Your task to perform on an android device: turn smart compose on in the gmail app Image 0: 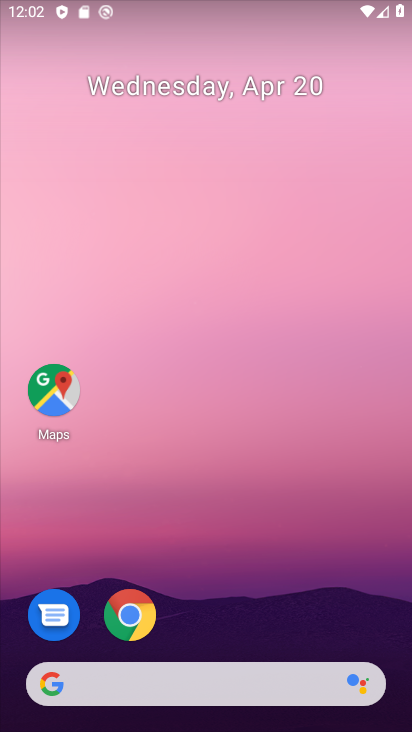
Step 0: click (352, 158)
Your task to perform on an android device: turn smart compose on in the gmail app Image 1: 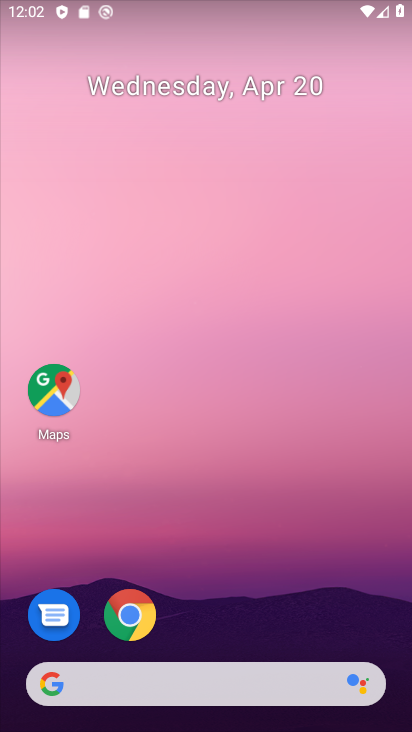
Step 1: drag from (367, 630) to (337, 168)
Your task to perform on an android device: turn smart compose on in the gmail app Image 2: 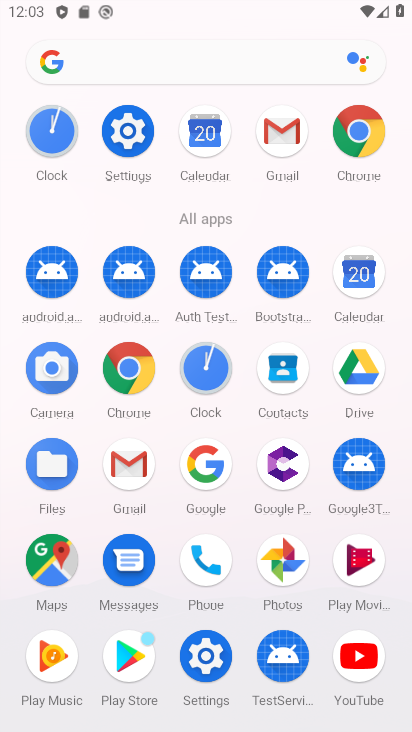
Step 2: click (268, 130)
Your task to perform on an android device: turn smart compose on in the gmail app Image 3: 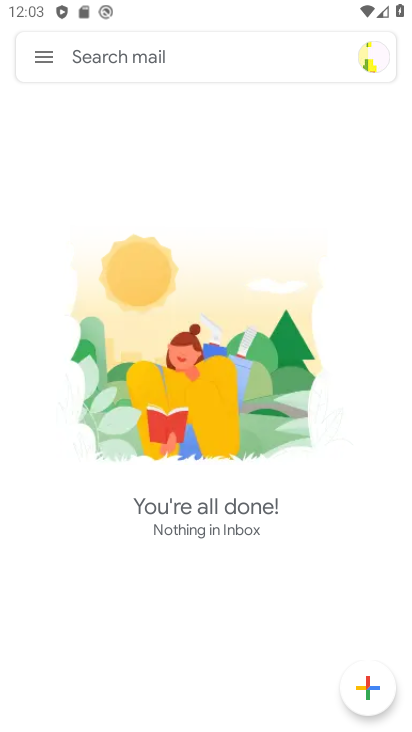
Step 3: click (38, 58)
Your task to perform on an android device: turn smart compose on in the gmail app Image 4: 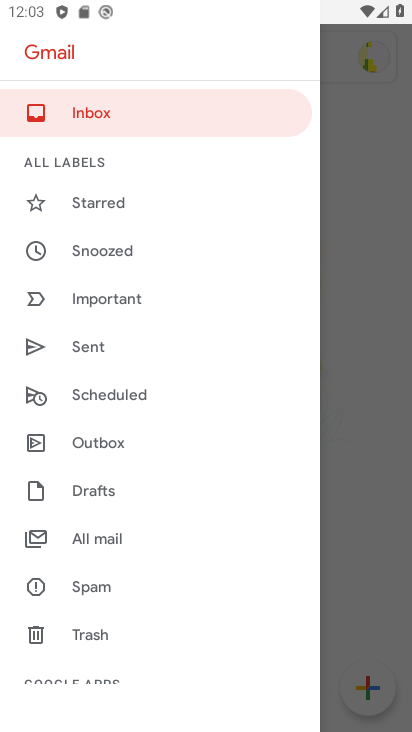
Step 4: drag from (178, 630) to (189, 341)
Your task to perform on an android device: turn smart compose on in the gmail app Image 5: 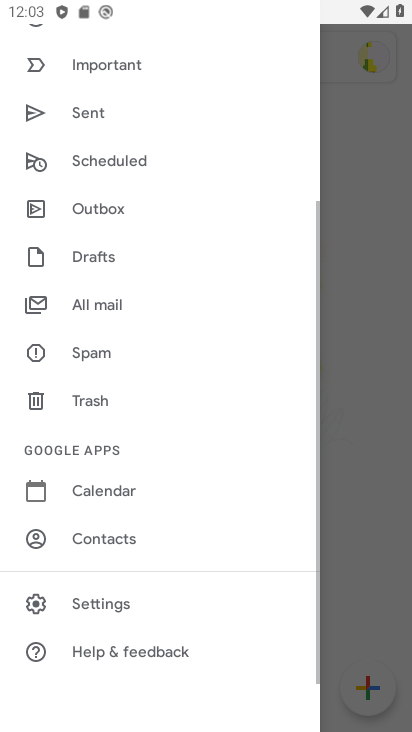
Step 5: click (107, 602)
Your task to perform on an android device: turn smart compose on in the gmail app Image 6: 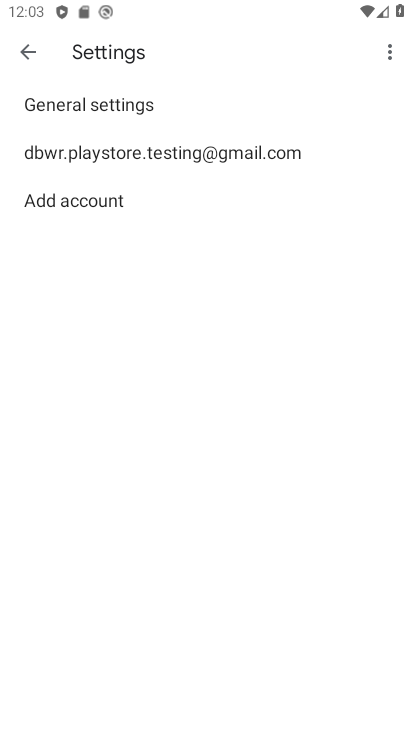
Step 6: click (105, 145)
Your task to perform on an android device: turn smart compose on in the gmail app Image 7: 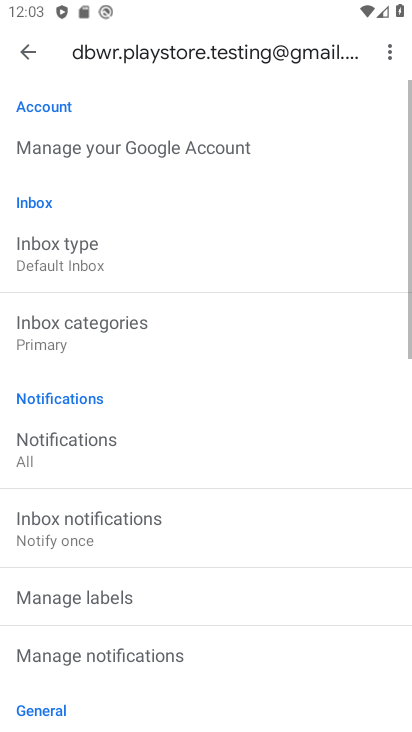
Step 7: drag from (250, 675) to (243, 305)
Your task to perform on an android device: turn smart compose on in the gmail app Image 8: 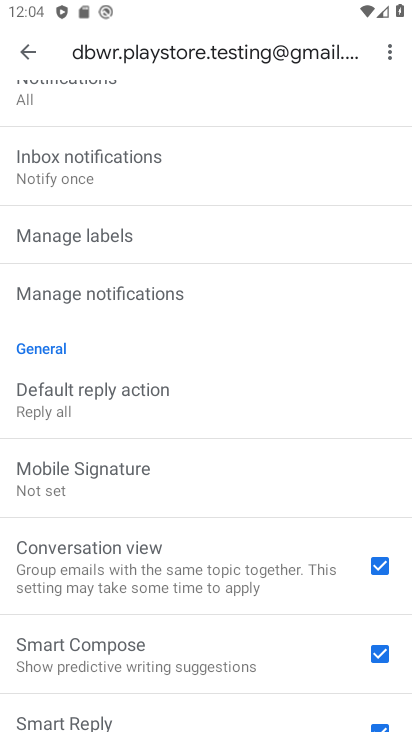
Step 8: drag from (272, 685) to (287, 279)
Your task to perform on an android device: turn smart compose on in the gmail app Image 9: 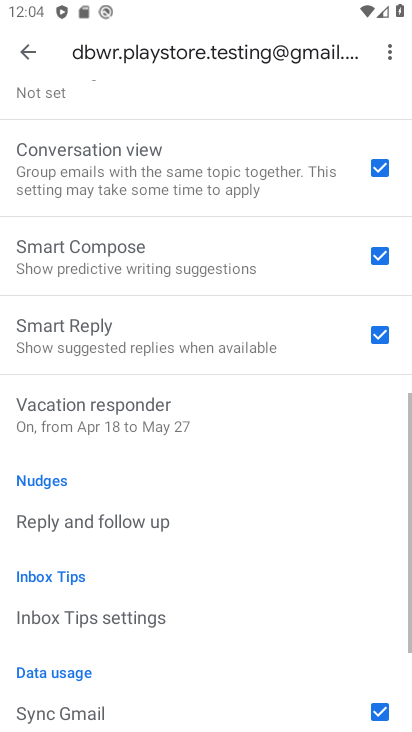
Step 9: drag from (232, 508) to (220, 333)
Your task to perform on an android device: turn smart compose on in the gmail app Image 10: 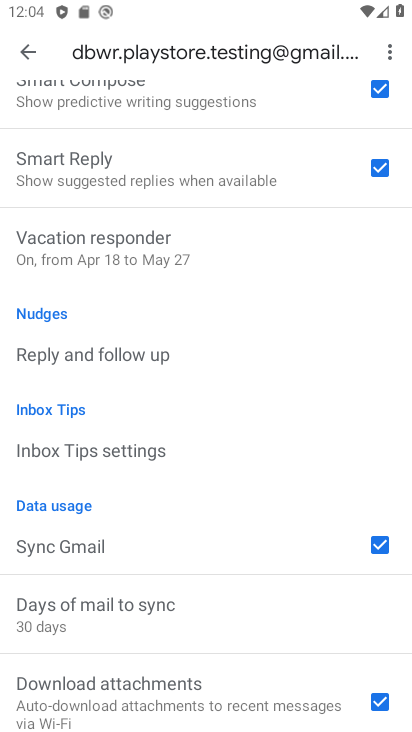
Step 10: click (261, 262)
Your task to perform on an android device: turn smart compose on in the gmail app Image 11: 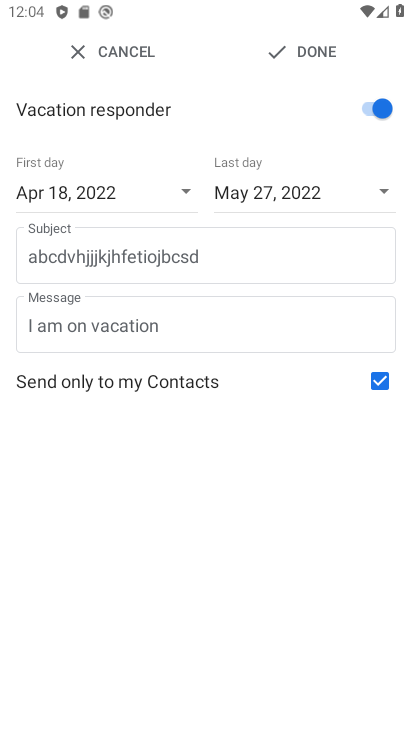
Step 11: press back button
Your task to perform on an android device: turn smart compose on in the gmail app Image 12: 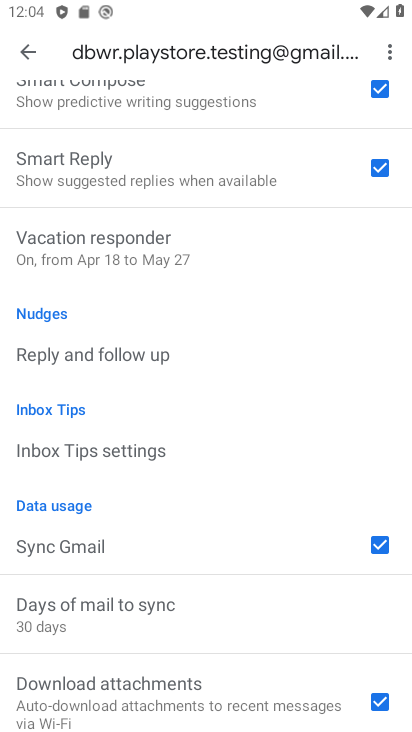
Step 12: click (300, 480)
Your task to perform on an android device: turn smart compose on in the gmail app Image 13: 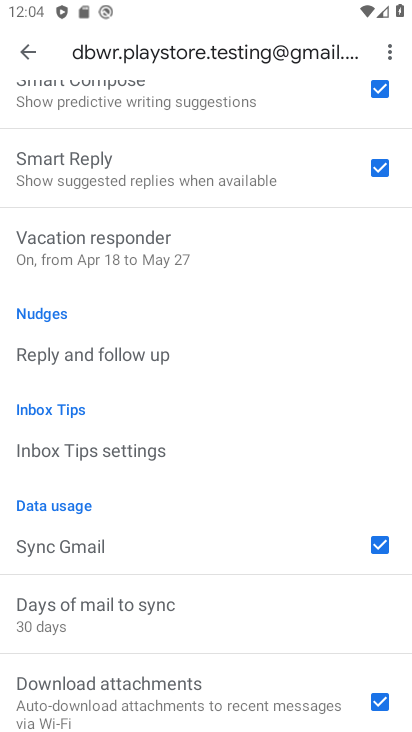
Step 13: click (378, 82)
Your task to perform on an android device: turn smart compose on in the gmail app Image 14: 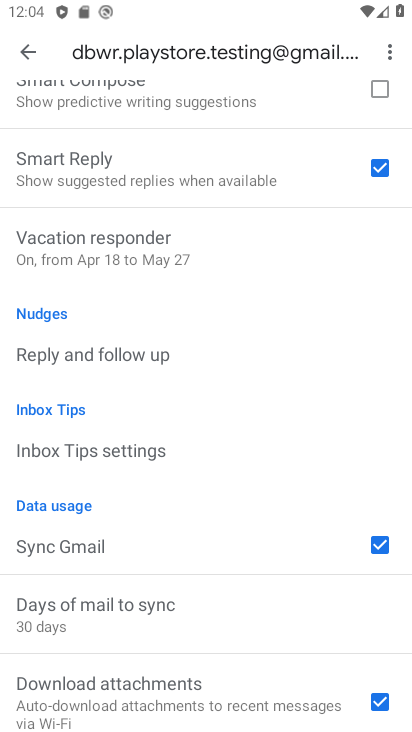
Step 14: task complete